Your task to perform on an android device: see creations saved in the google photos Image 0: 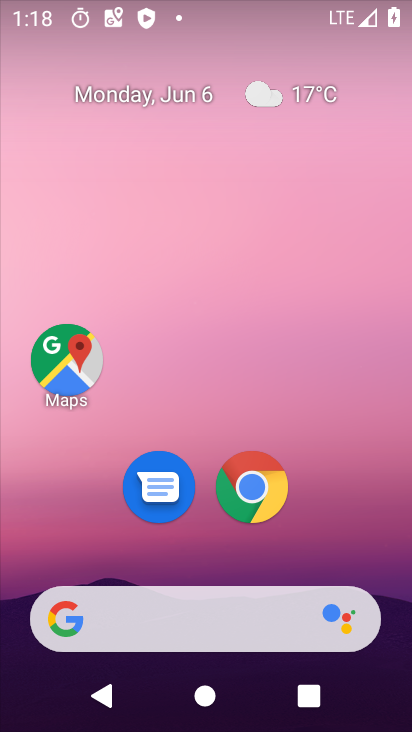
Step 0: drag from (193, 565) to (290, 31)
Your task to perform on an android device: see creations saved in the google photos Image 1: 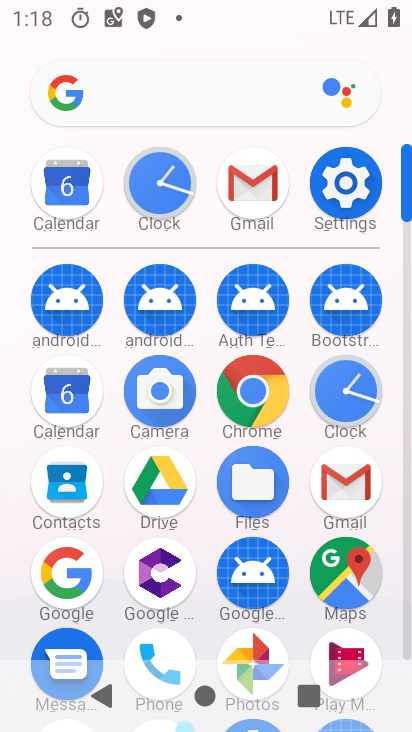
Step 1: click (251, 652)
Your task to perform on an android device: see creations saved in the google photos Image 2: 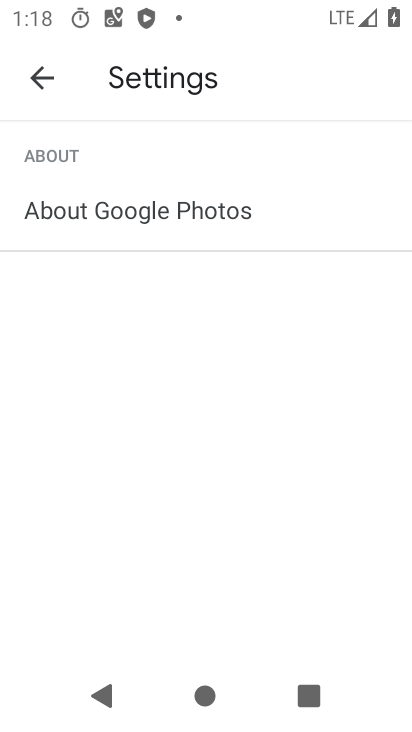
Step 2: click (53, 90)
Your task to perform on an android device: see creations saved in the google photos Image 3: 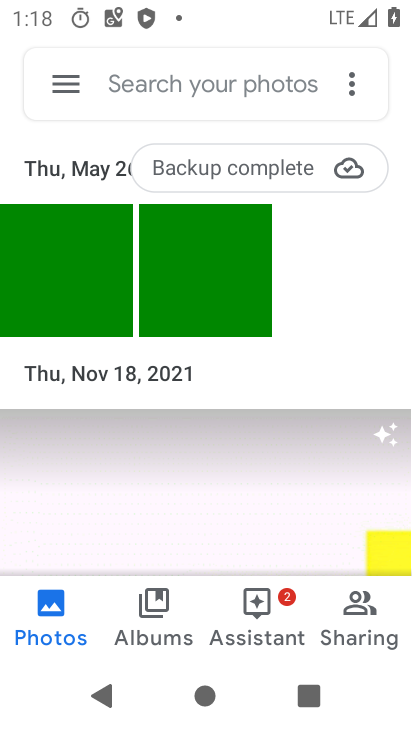
Step 3: click (53, 90)
Your task to perform on an android device: see creations saved in the google photos Image 4: 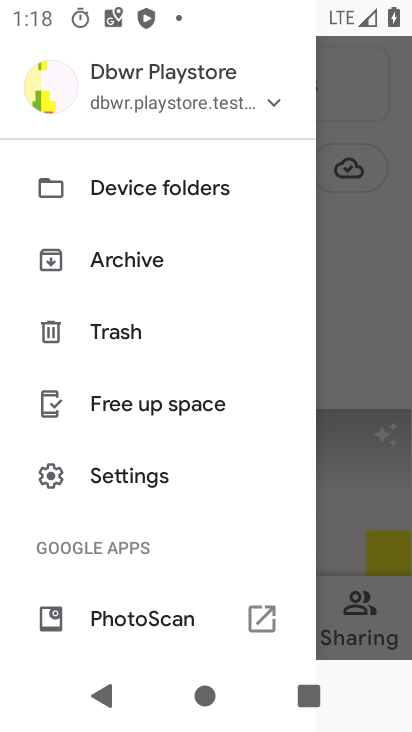
Step 4: click (134, 249)
Your task to perform on an android device: see creations saved in the google photos Image 5: 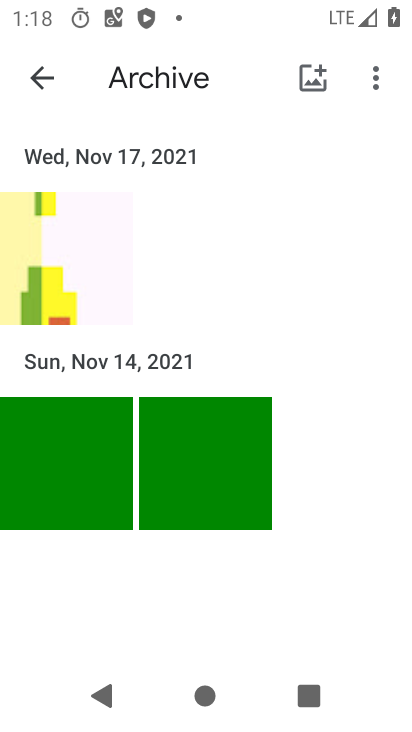
Step 5: task complete